Your task to perform on an android device: Open calendar and show me the fourth week of next month Image 0: 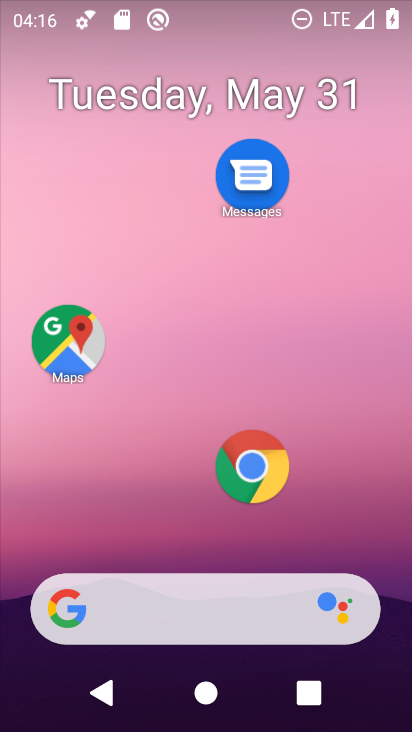
Step 0: drag from (126, 507) to (172, 83)
Your task to perform on an android device: Open calendar and show me the fourth week of next month Image 1: 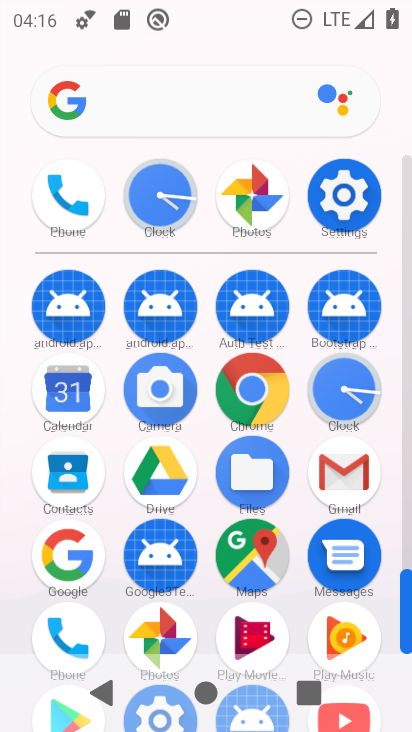
Step 1: click (73, 403)
Your task to perform on an android device: Open calendar and show me the fourth week of next month Image 2: 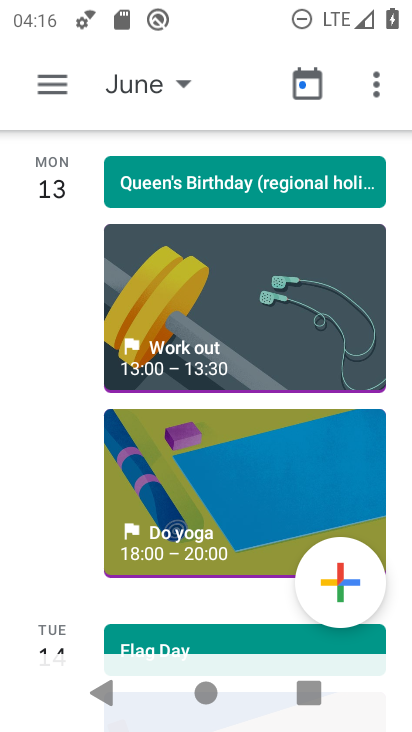
Step 2: click (158, 86)
Your task to perform on an android device: Open calendar and show me the fourth week of next month Image 3: 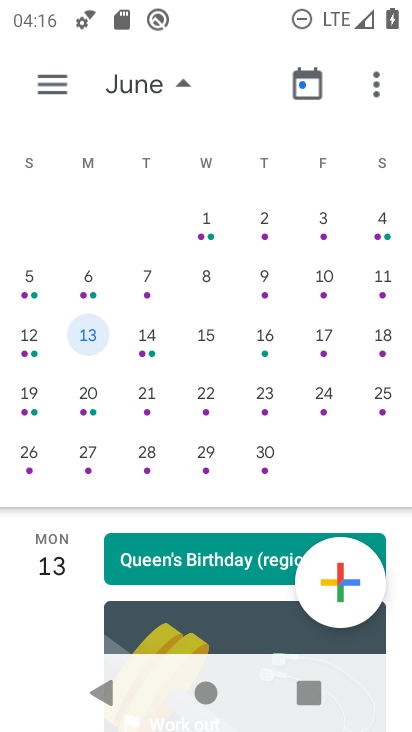
Step 3: click (89, 399)
Your task to perform on an android device: Open calendar and show me the fourth week of next month Image 4: 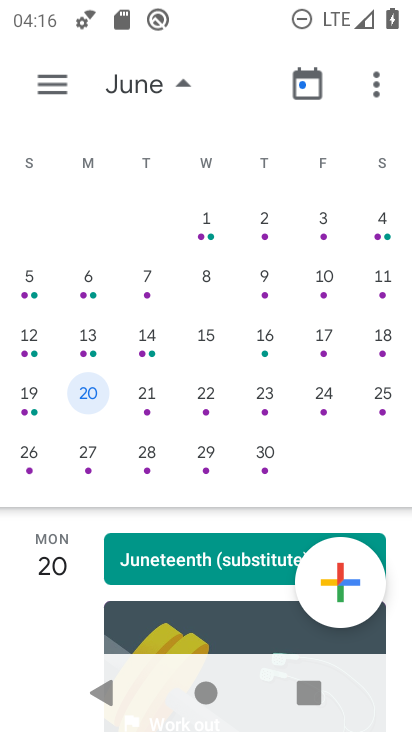
Step 4: task complete